Your task to perform on an android device: Open Google Image 0: 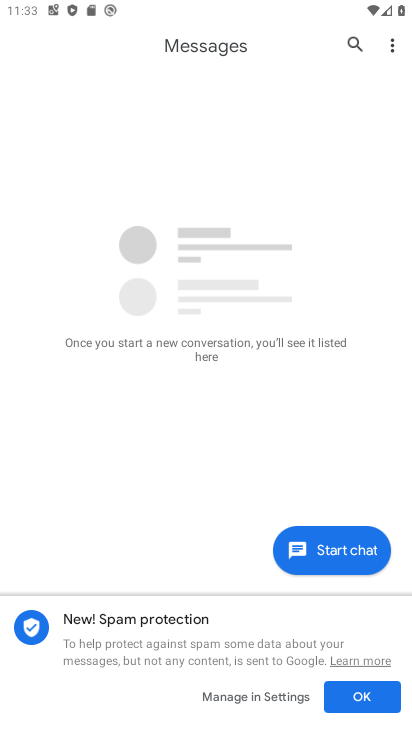
Step 0: press home button
Your task to perform on an android device: Open Google Image 1: 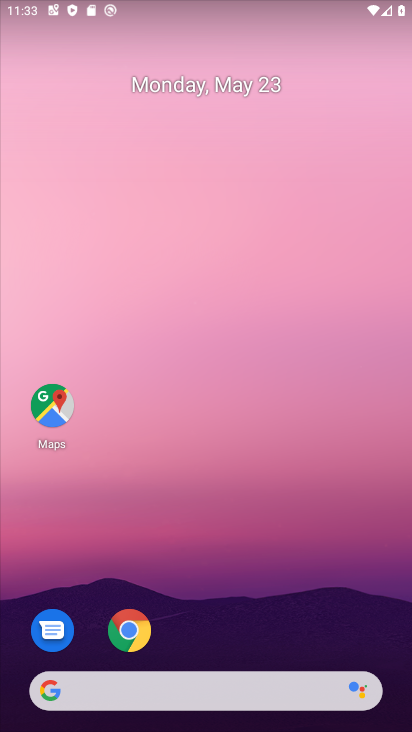
Step 1: click (41, 687)
Your task to perform on an android device: Open Google Image 2: 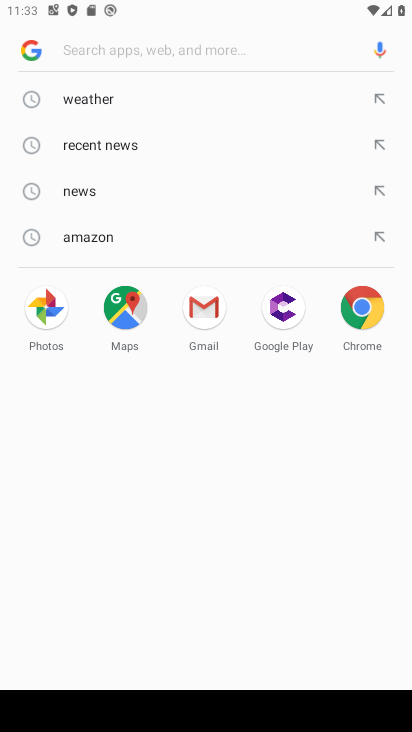
Step 2: click (29, 50)
Your task to perform on an android device: Open Google Image 3: 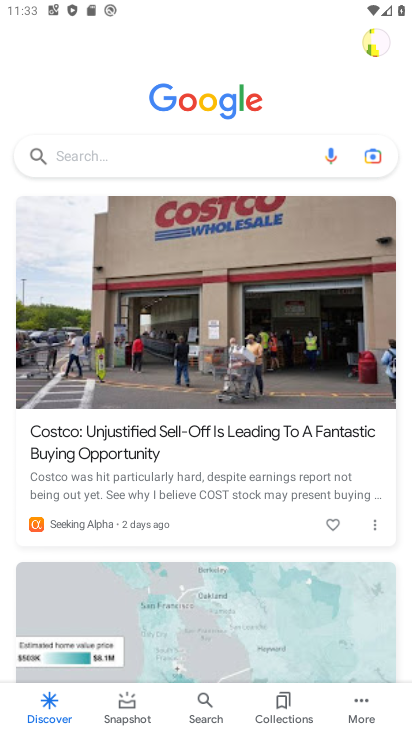
Step 3: task complete